Your task to perform on an android device: When is my next meeting? Image 0: 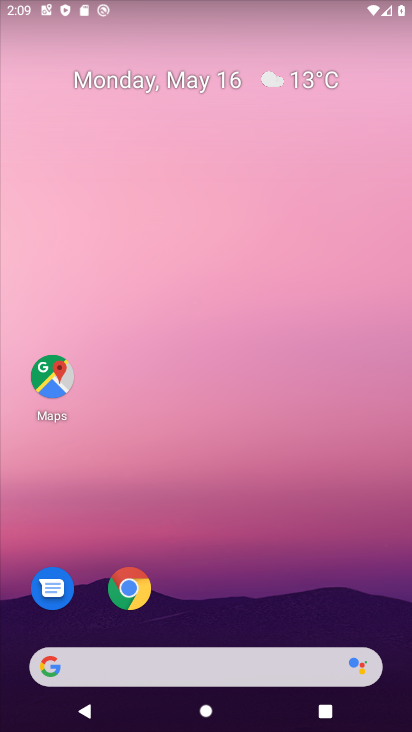
Step 0: drag from (280, 436) to (298, 27)
Your task to perform on an android device: When is my next meeting? Image 1: 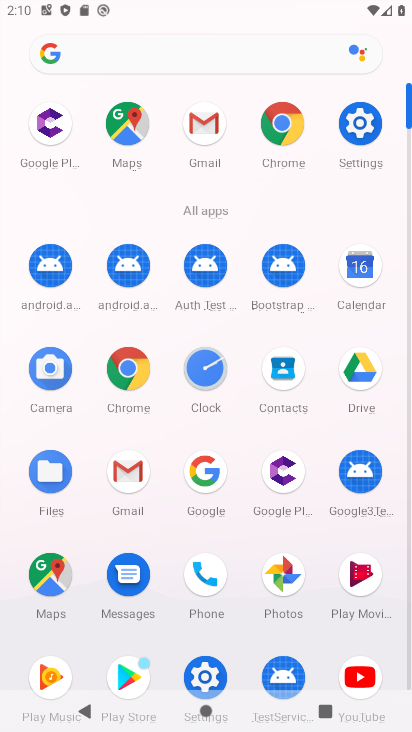
Step 1: click (344, 277)
Your task to perform on an android device: When is my next meeting? Image 2: 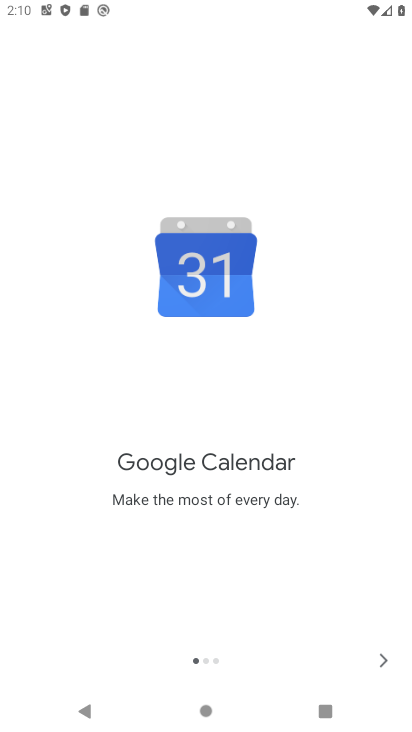
Step 2: click (395, 658)
Your task to perform on an android device: When is my next meeting? Image 3: 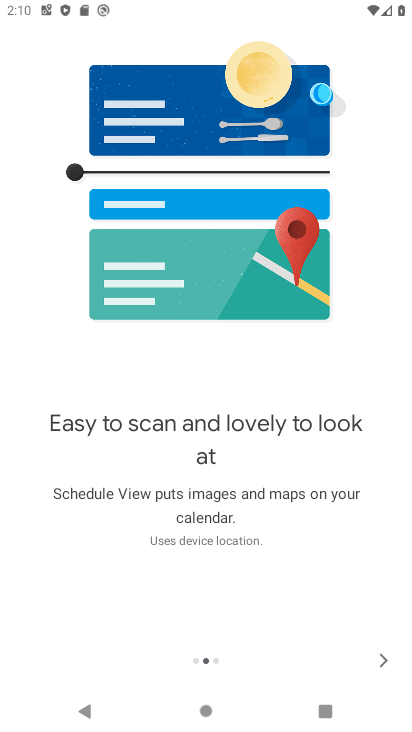
Step 3: click (387, 659)
Your task to perform on an android device: When is my next meeting? Image 4: 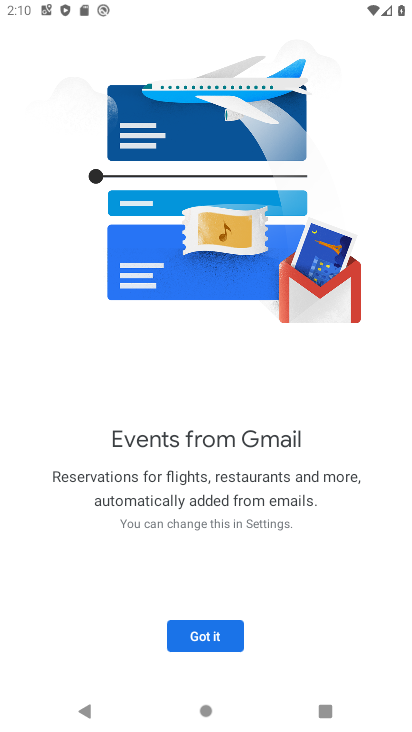
Step 4: click (205, 629)
Your task to perform on an android device: When is my next meeting? Image 5: 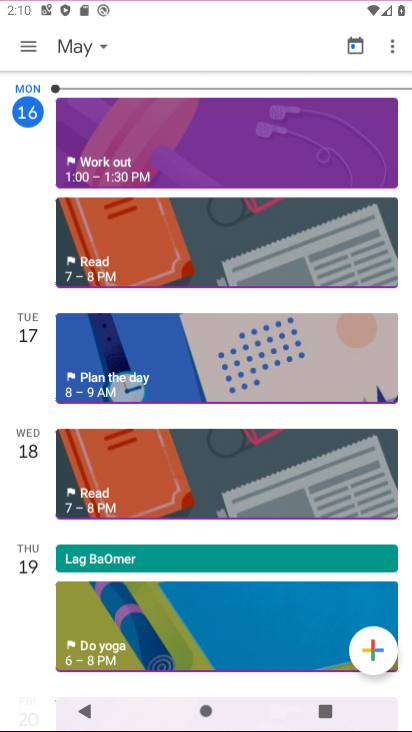
Step 5: click (201, 636)
Your task to perform on an android device: When is my next meeting? Image 6: 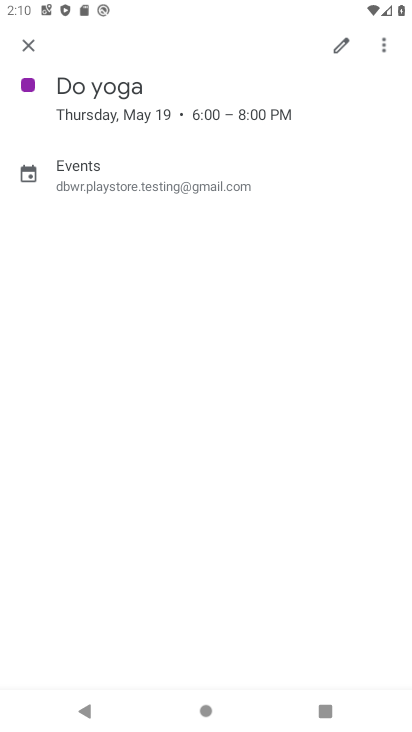
Step 6: click (26, 40)
Your task to perform on an android device: When is my next meeting? Image 7: 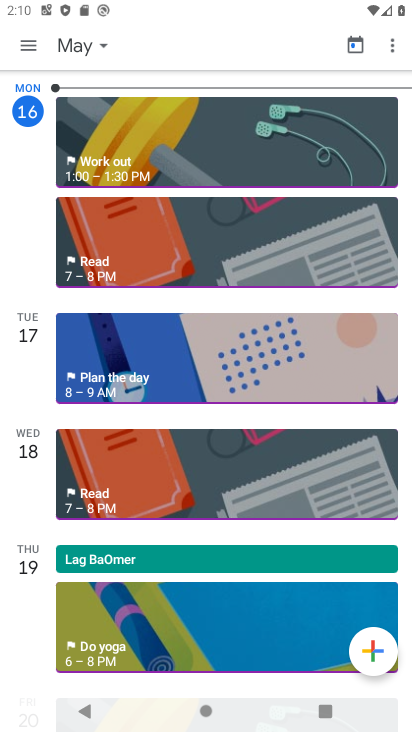
Step 7: click (103, 44)
Your task to perform on an android device: When is my next meeting? Image 8: 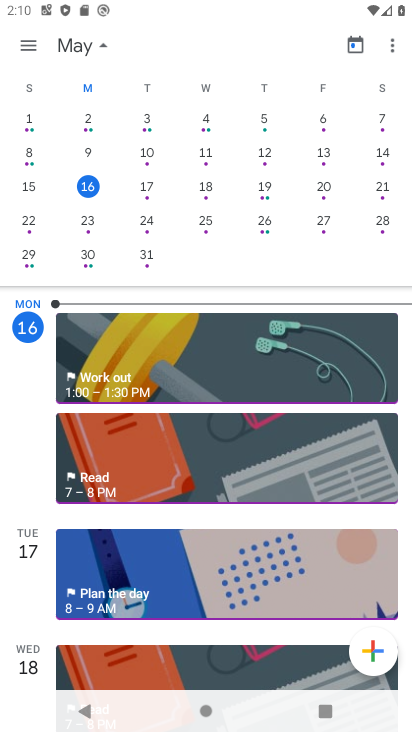
Step 8: task complete